Your task to perform on an android device: turn off javascript in the chrome app Image 0: 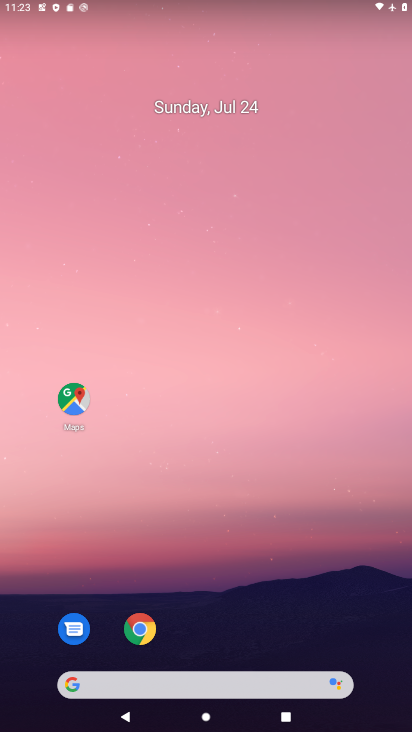
Step 0: click (151, 621)
Your task to perform on an android device: turn off javascript in the chrome app Image 1: 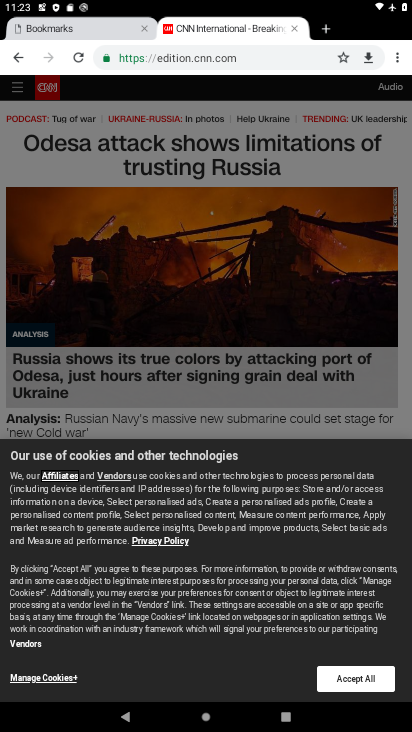
Step 1: click (393, 66)
Your task to perform on an android device: turn off javascript in the chrome app Image 2: 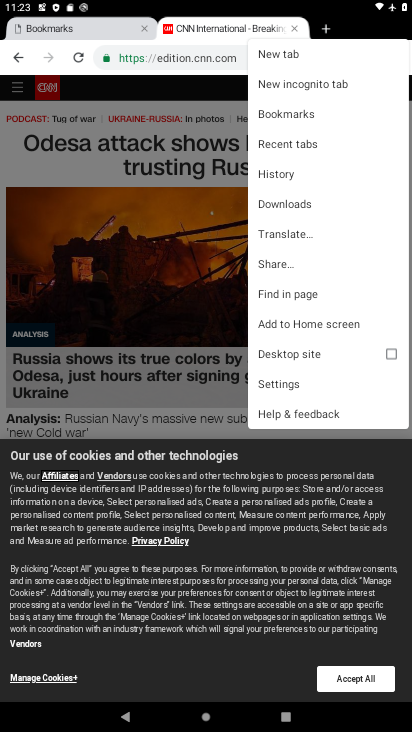
Step 2: click (309, 375)
Your task to perform on an android device: turn off javascript in the chrome app Image 3: 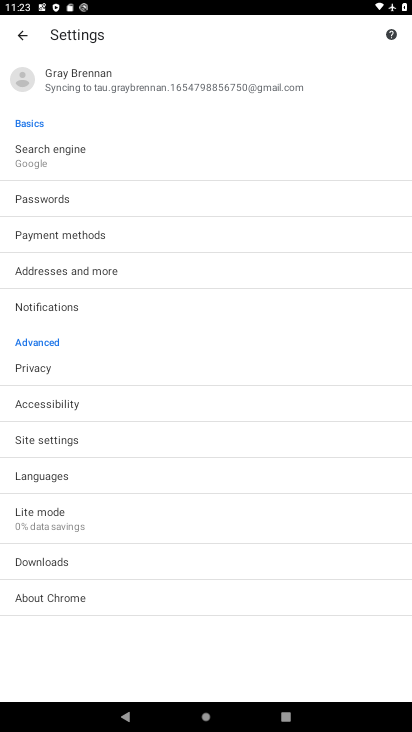
Step 3: click (210, 439)
Your task to perform on an android device: turn off javascript in the chrome app Image 4: 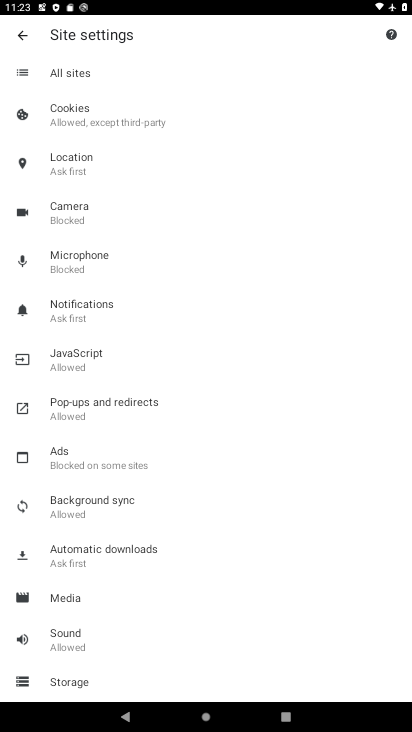
Step 4: click (113, 355)
Your task to perform on an android device: turn off javascript in the chrome app Image 5: 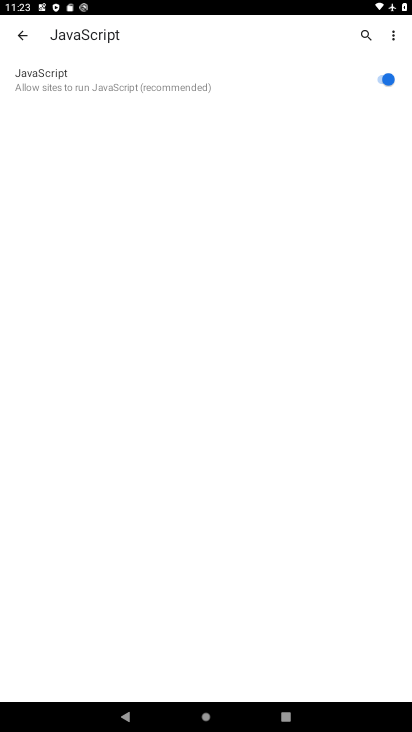
Step 5: click (377, 91)
Your task to perform on an android device: turn off javascript in the chrome app Image 6: 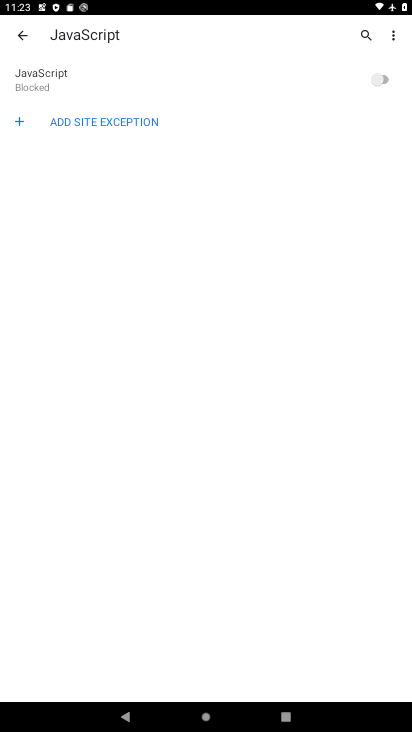
Step 6: task complete